Your task to perform on an android device: show emergency info Image 0: 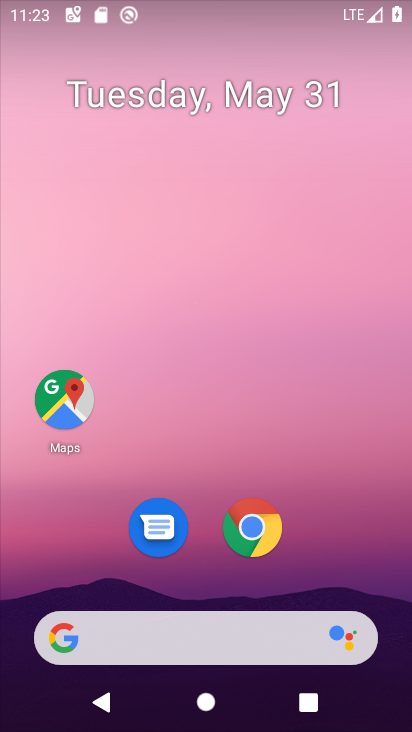
Step 0: drag from (377, 609) to (332, 0)
Your task to perform on an android device: show emergency info Image 1: 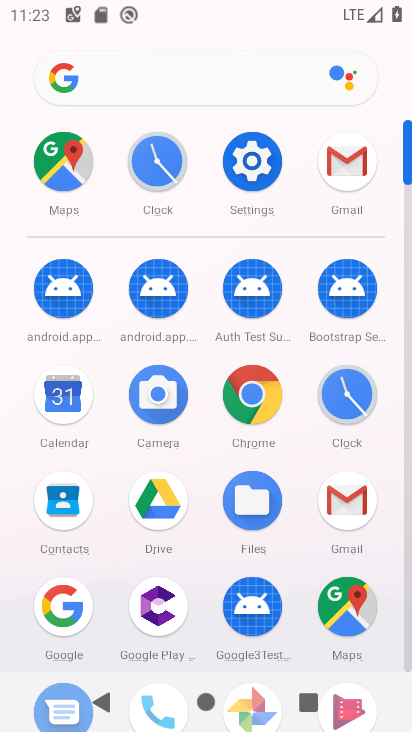
Step 1: click (250, 163)
Your task to perform on an android device: show emergency info Image 2: 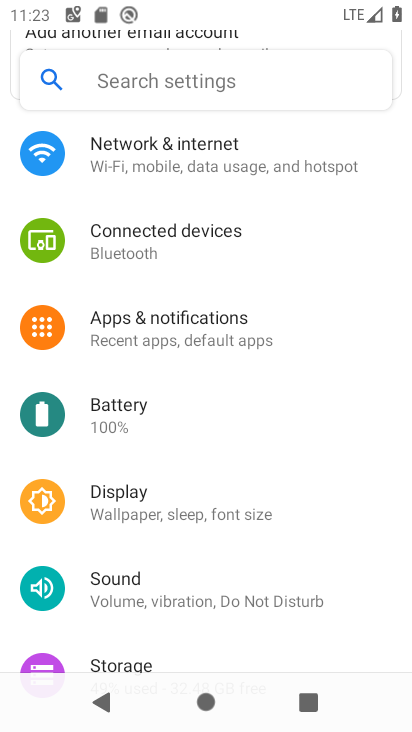
Step 2: drag from (354, 601) to (332, 114)
Your task to perform on an android device: show emergency info Image 3: 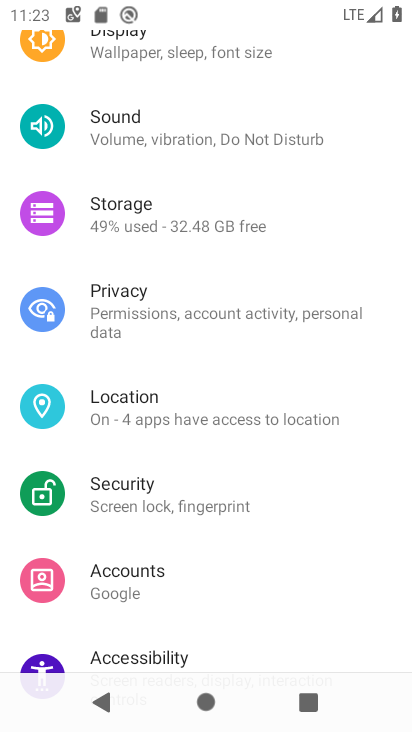
Step 3: drag from (325, 544) to (289, 132)
Your task to perform on an android device: show emergency info Image 4: 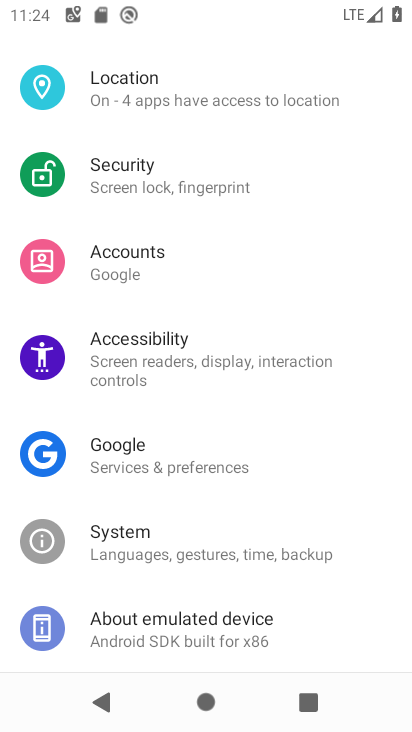
Step 4: click (156, 633)
Your task to perform on an android device: show emergency info Image 5: 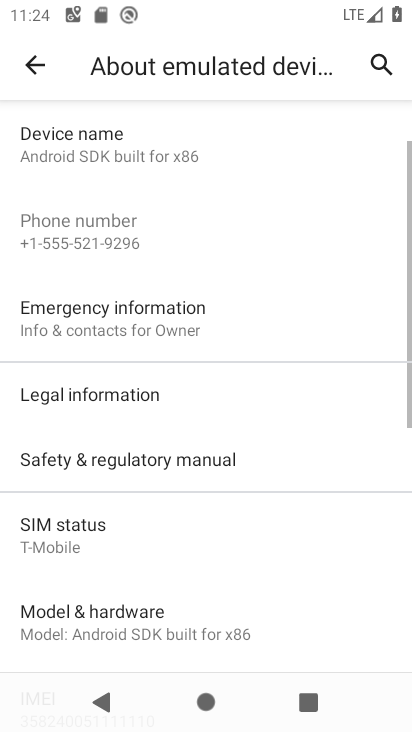
Step 5: click (87, 324)
Your task to perform on an android device: show emergency info Image 6: 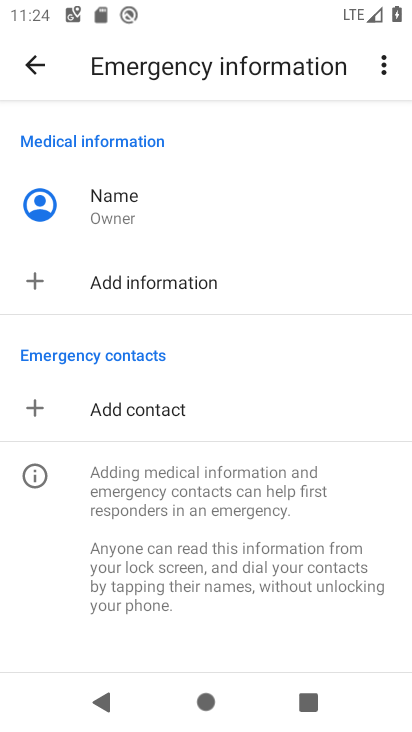
Step 6: task complete